Your task to perform on an android device: Open Amazon Image 0: 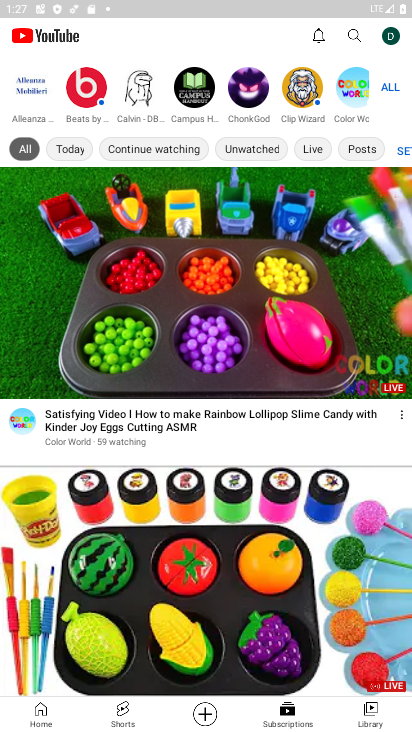
Step 0: press home button
Your task to perform on an android device: Open Amazon Image 1: 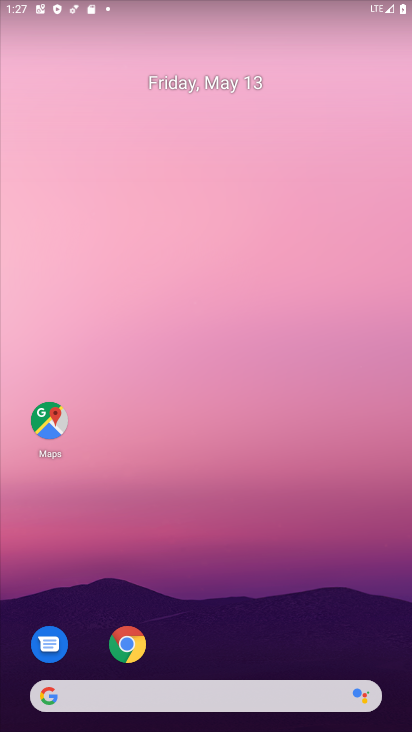
Step 1: drag from (316, 530) to (253, 71)
Your task to perform on an android device: Open Amazon Image 2: 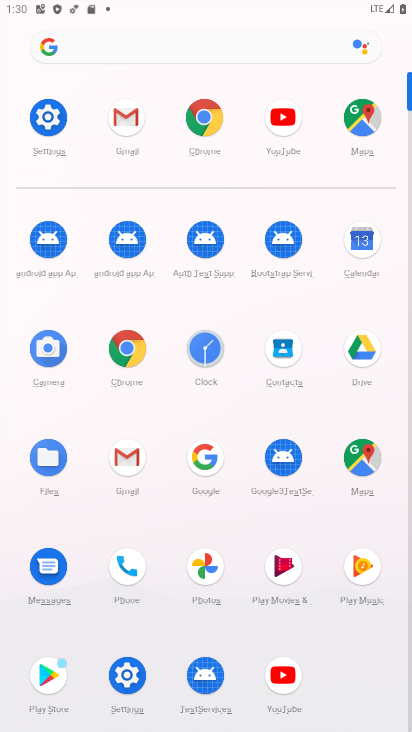
Step 2: click (125, 339)
Your task to perform on an android device: Open Amazon Image 3: 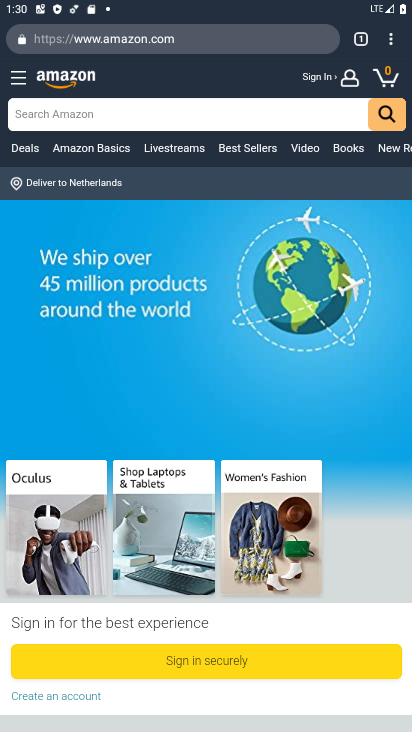
Step 3: task complete